Your task to perform on an android device: star an email in the gmail app Image 0: 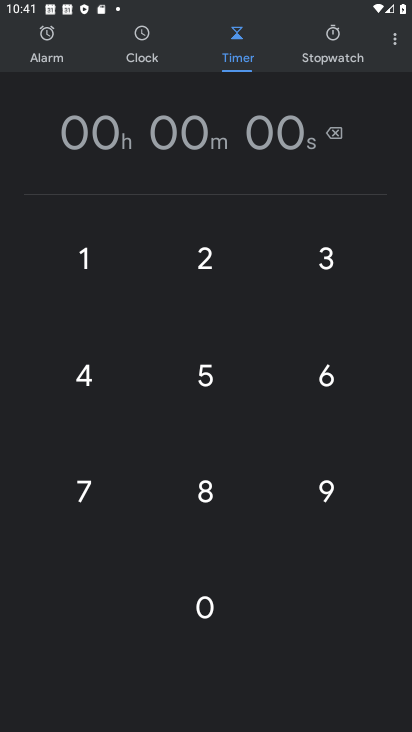
Step 0: click (383, 46)
Your task to perform on an android device: star an email in the gmail app Image 1: 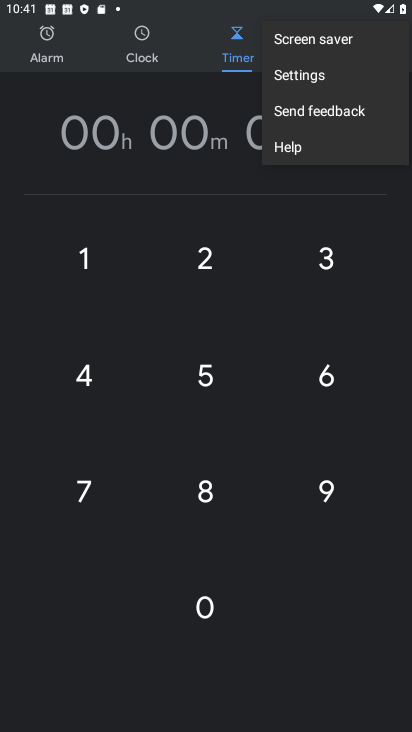
Step 1: press home button
Your task to perform on an android device: star an email in the gmail app Image 2: 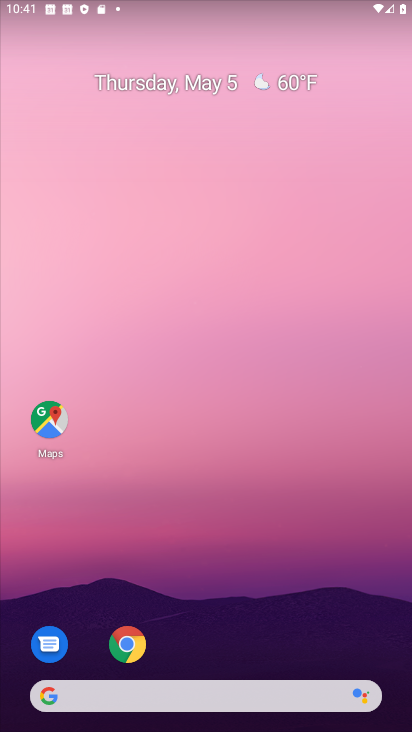
Step 2: drag from (189, 689) to (236, 43)
Your task to perform on an android device: star an email in the gmail app Image 3: 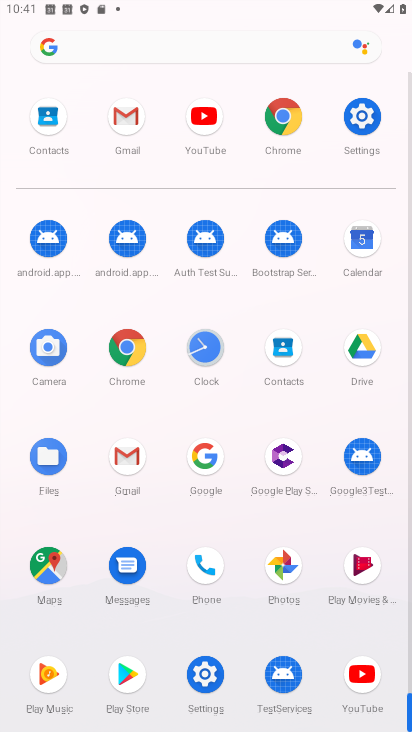
Step 3: click (129, 464)
Your task to perform on an android device: star an email in the gmail app Image 4: 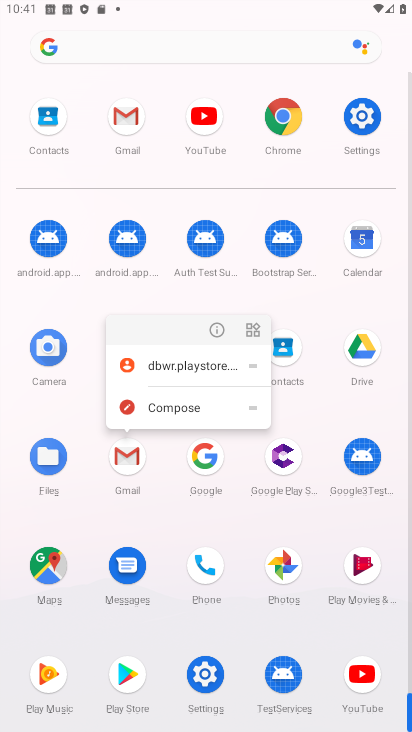
Step 4: click (216, 324)
Your task to perform on an android device: star an email in the gmail app Image 5: 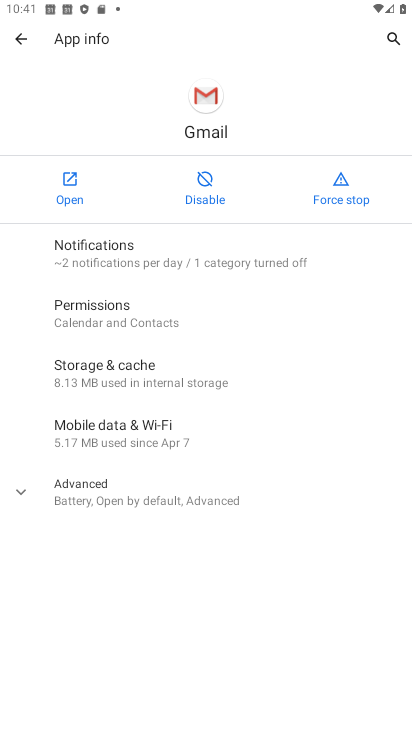
Step 5: click (76, 196)
Your task to perform on an android device: star an email in the gmail app Image 6: 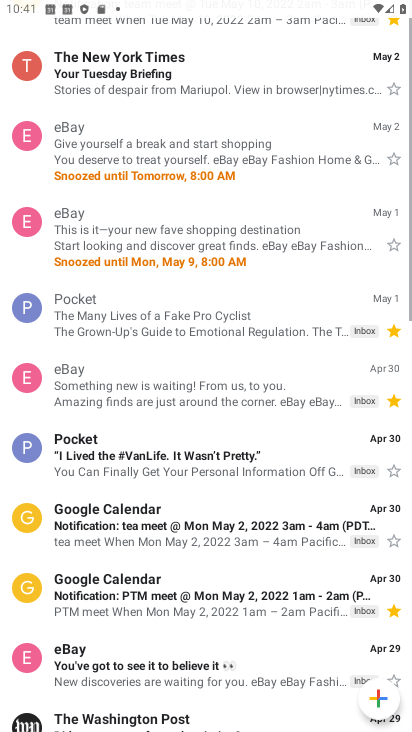
Step 6: drag from (180, 146) to (260, 640)
Your task to perform on an android device: star an email in the gmail app Image 7: 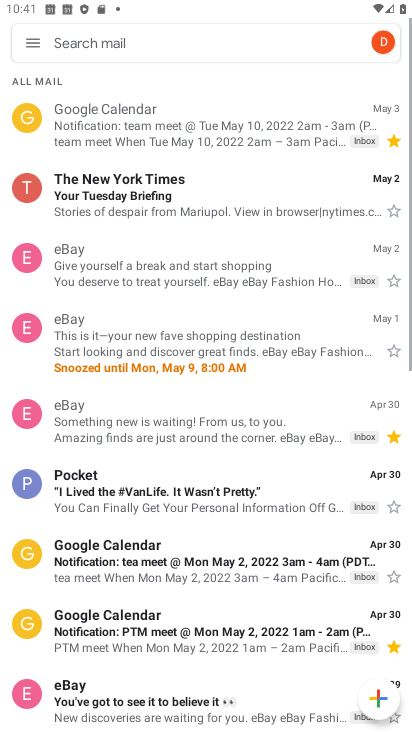
Step 7: click (28, 44)
Your task to perform on an android device: star an email in the gmail app Image 8: 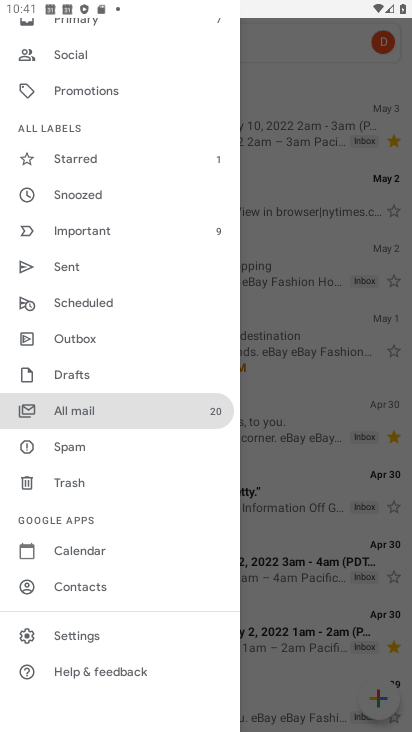
Step 8: click (89, 157)
Your task to perform on an android device: star an email in the gmail app Image 9: 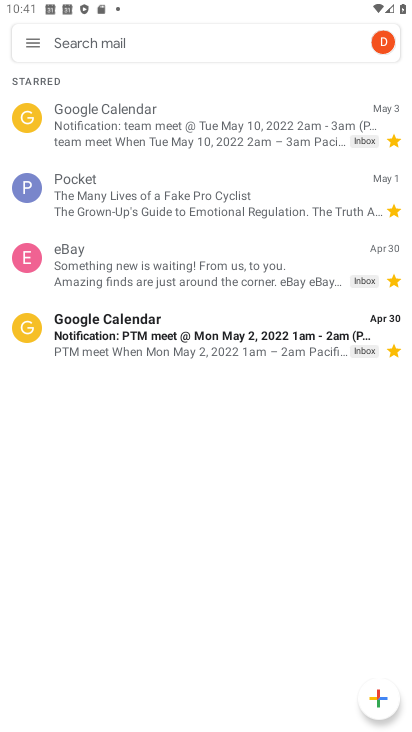
Step 9: click (31, 40)
Your task to perform on an android device: star an email in the gmail app Image 10: 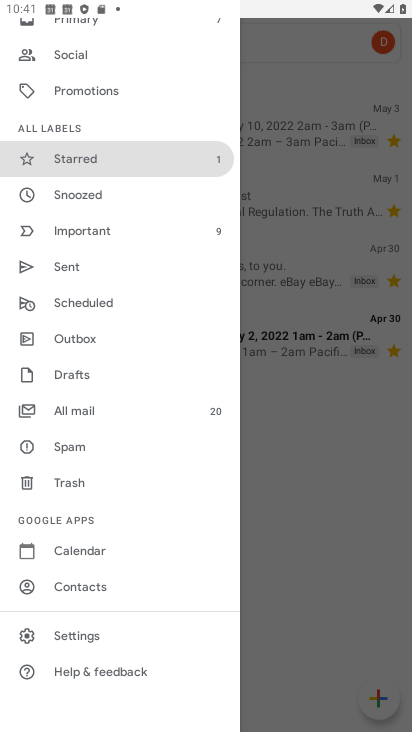
Step 10: drag from (131, 154) to (204, 579)
Your task to perform on an android device: star an email in the gmail app Image 11: 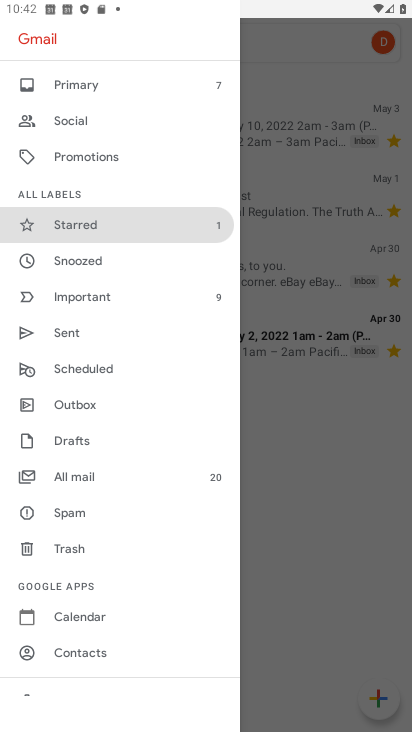
Step 11: click (120, 224)
Your task to perform on an android device: star an email in the gmail app Image 12: 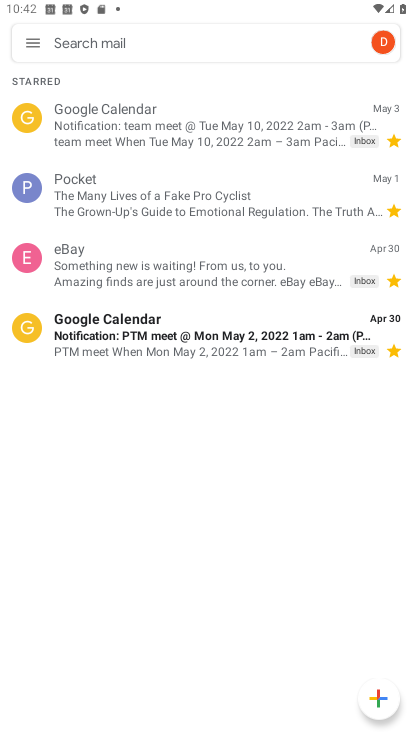
Step 12: drag from (188, 661) to (264, 77)
Your task to perform on an android device: star an email in the gmail app Image 13: 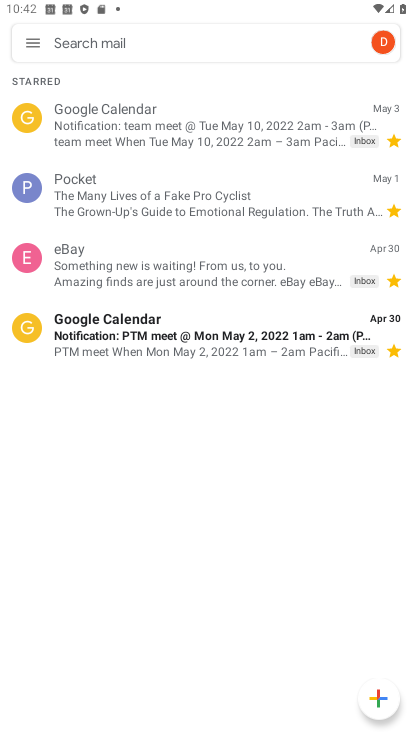
Step 13: drag from (168, 547) to (174, 38)
Your task to perform on an android device: star an email in the gmail app Image 14: 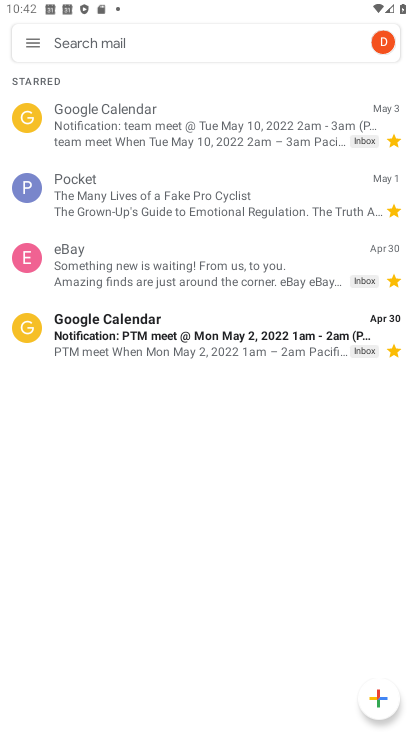
Step 14: click (34, 47)
Your task to perform on an android device: star an email in the gmail app Image 15: 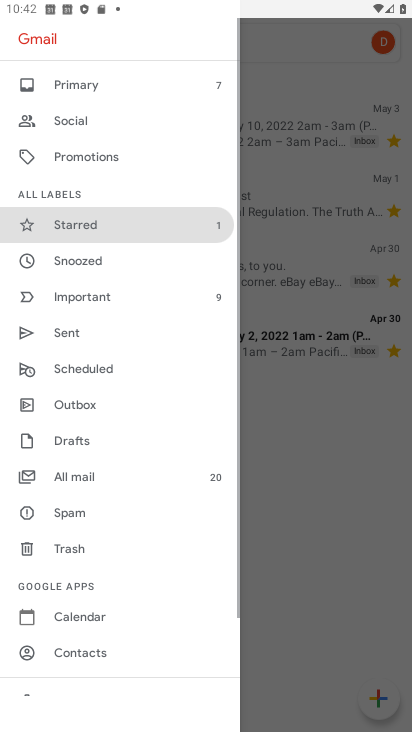
Step 15: drag from (93, 139) to (177, 392)
Your task to perform on an android device: star an email in the gmail app Image 16: 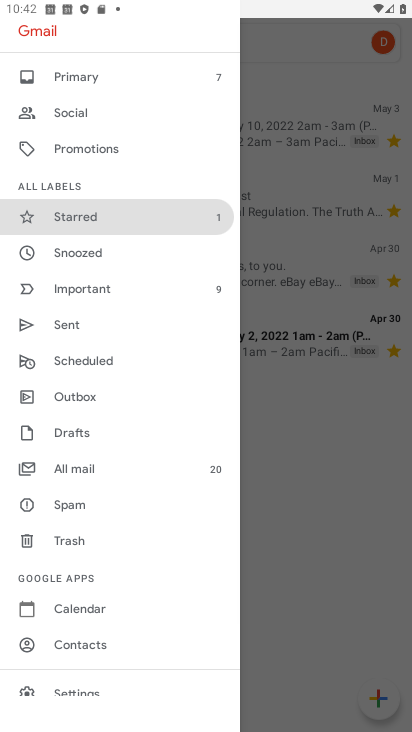
Step 16: click (87, 87)
Your task to perform on an android device: star an email in the gmail app Image 17: 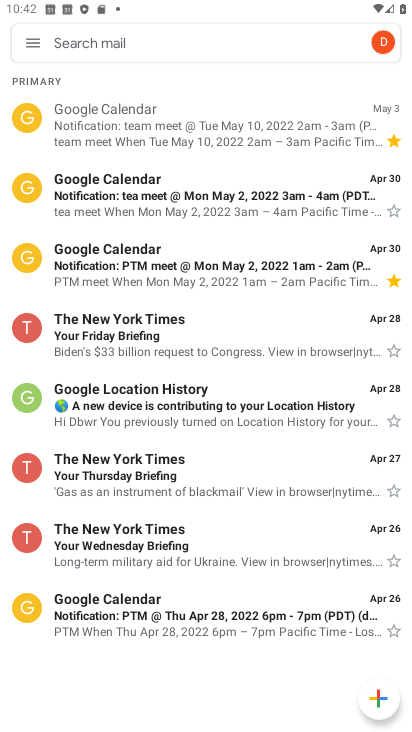
Step 17: click (276, 354)
Your task to perform on an android device: star an email in the gmail app Image 18: 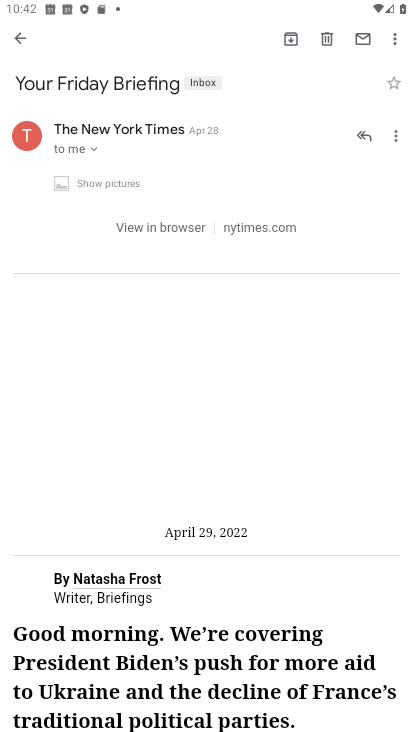
Step 18: click (396, 85)
Your task to perform on an android device: star an email in the gmail app Image 19: 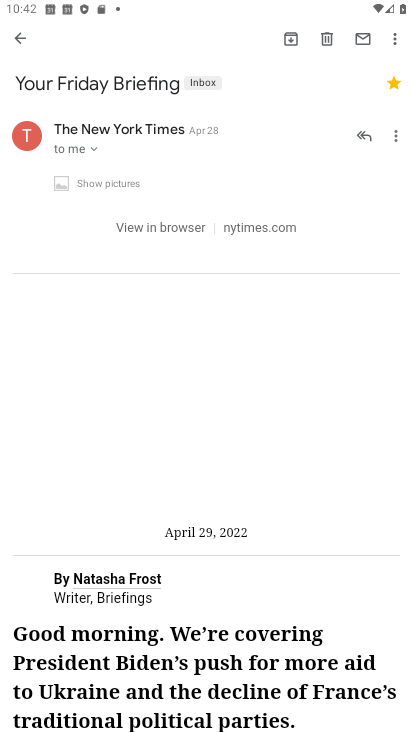
Step 19: task complete